Your task to perform on an android device: Open the calendar and show me this week's events Image 0: 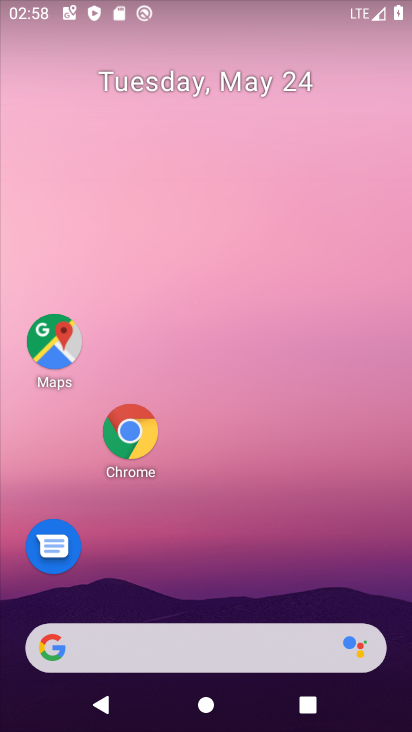
Step 0: click (289, 121)
Your task to perform on an android device: Open the calendar and show me this week's events Image 1: 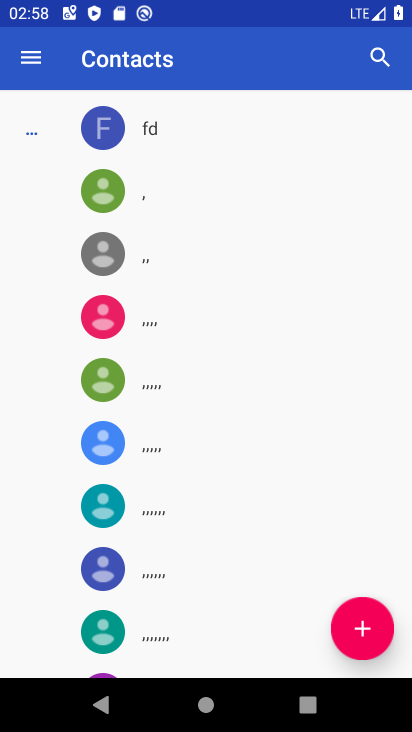
Step 1: press home button
Your task to perform on an android device: Open the calendar and show me this week's events Image 2: 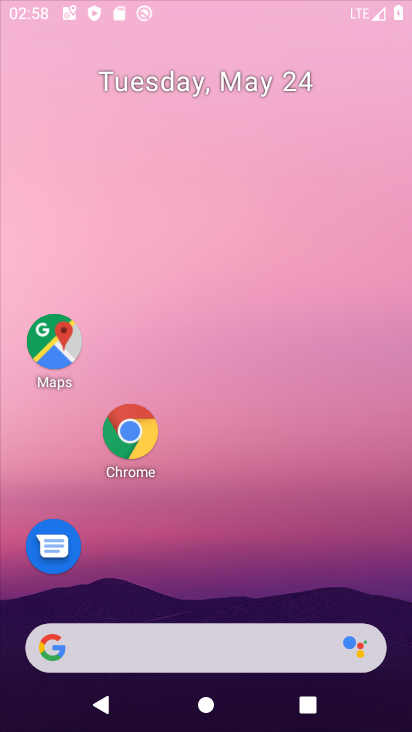
Step 2: drag from (139, 599) to (285, 99)
Your task to perform on an android device: Open the calendar and show me this week's events Image 3: 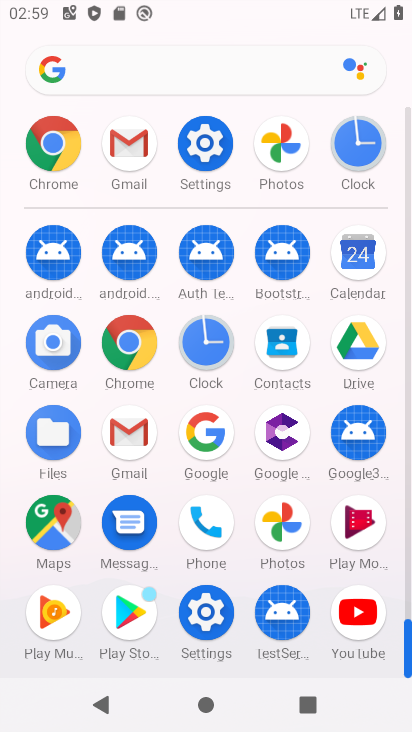
Step 3: click (360, 254)
Your task to perform on an android device: Open the calendar and show me this week's events Image 4: 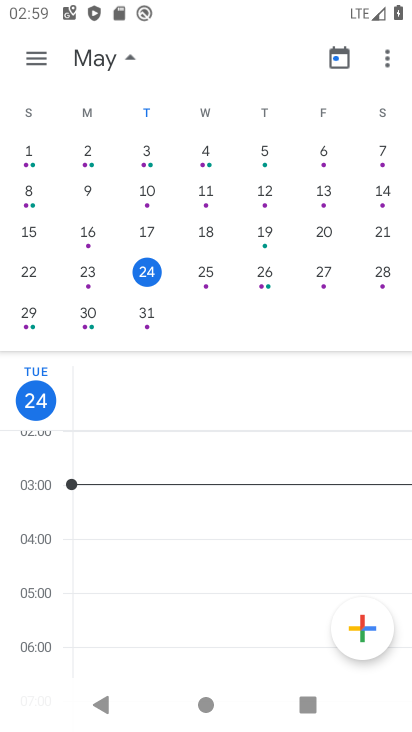
Step 4: click (268, 274)
Your task to perform on an android device: Open the calendar and show me this week's events Image 5: 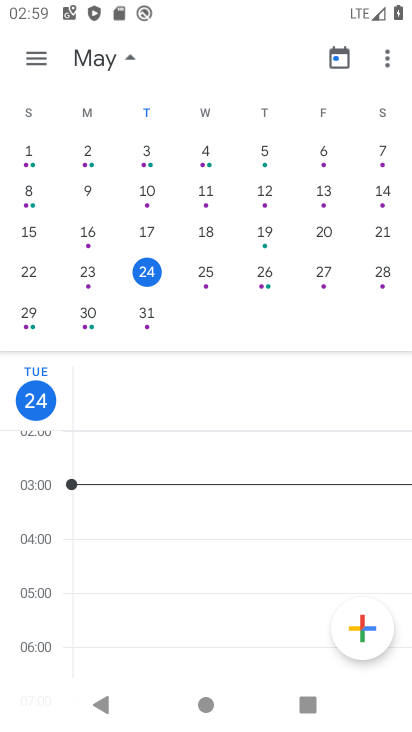
Step 5: click (268, 277)
Your task to perform on an android device: Open the calendar and show me this week's events Image 6: 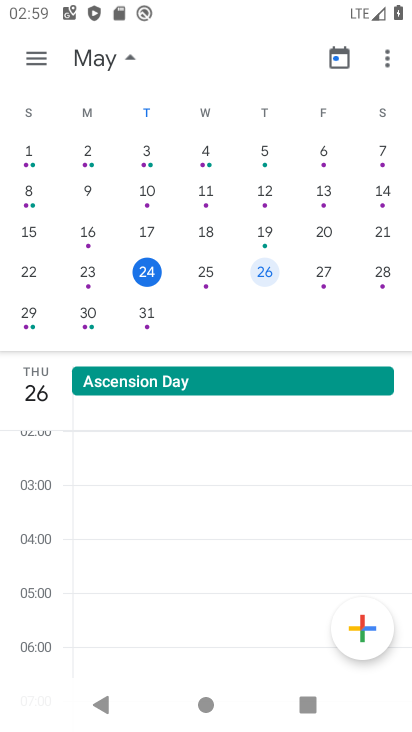
Step 6: task complete